Your task to perform on an android device: turn off sleep mode Image 0: 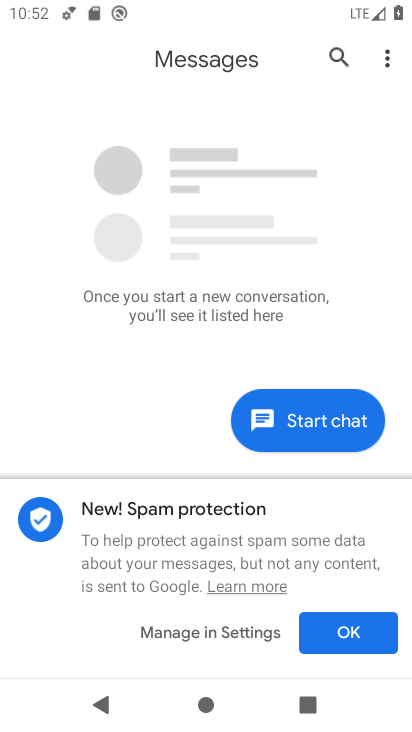
Step 0: press home button
Your task to perform on an android device: turn off sleep mode Image 1: 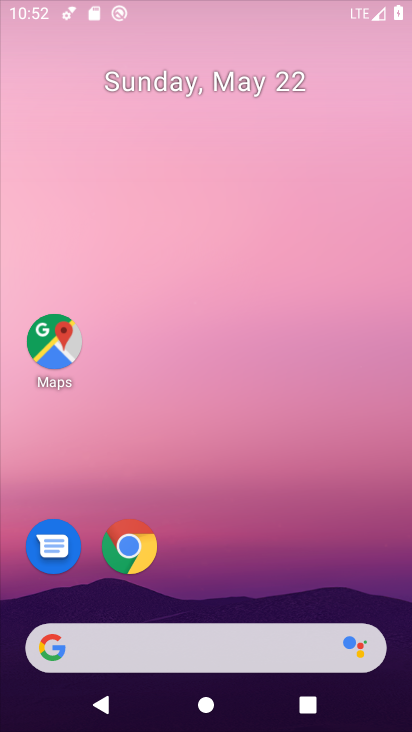
Step 1: drag from (205, 641) to (257, 74)
Your task to perform on an android device: turn off sleep mode Image 2: 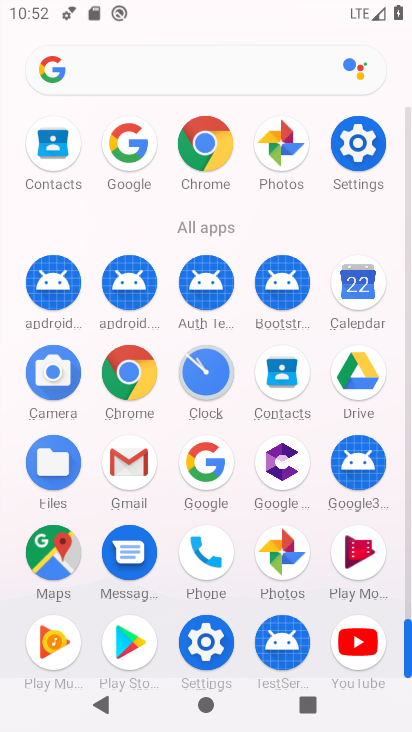
Step 2: click (365, 140)
Your task to perform on an android device: turn off sleep mode Image 3: 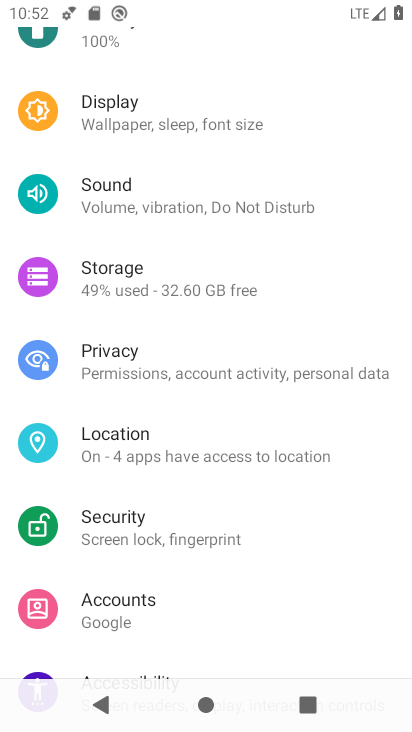
Step 3: click (172, 131)
Your task to perform on an android device: turn off sleep mode Image 4: 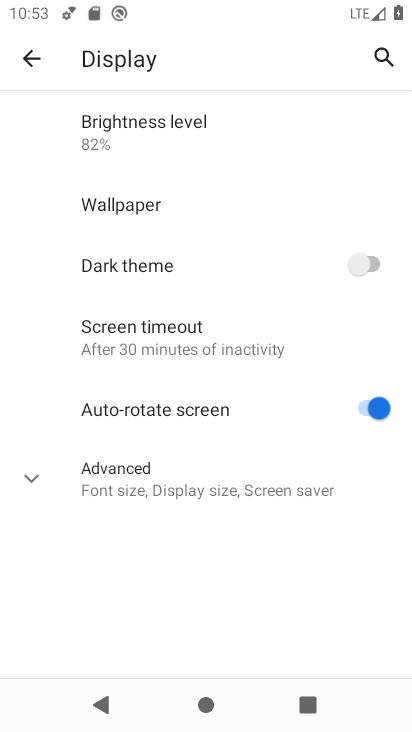
Step 4: click (148, 489)
Your task to perform on an android device: turn off sleep mode Image 5: 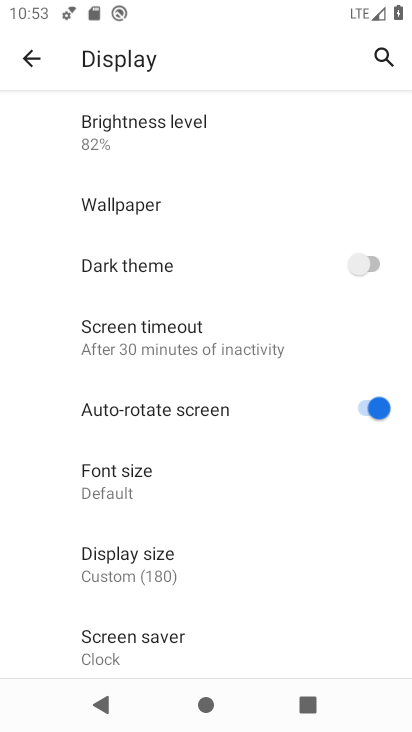
Step 5: task complete